Your task to perform on an android device: remove spam from my inbox in the gmail app Image 0: 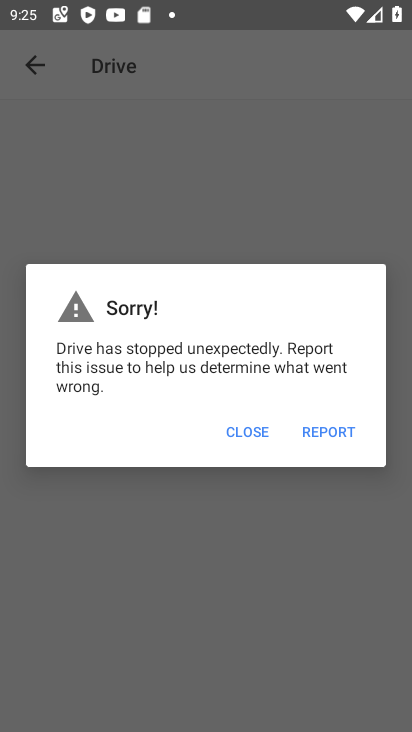
Step 0: press home button
Your task to perform on an android device: remove spam from my inbox in the gmail app Image 1: 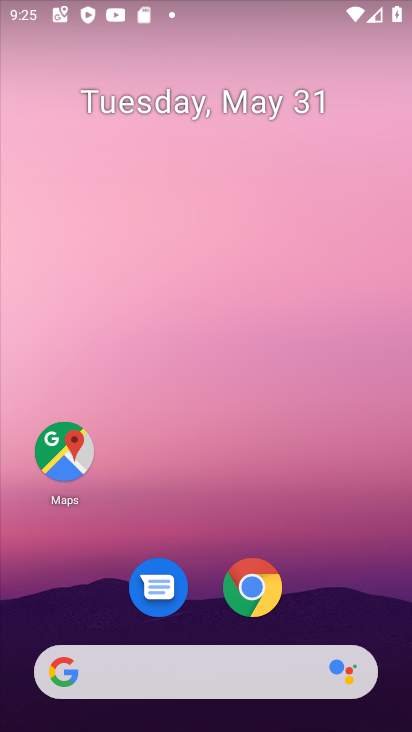
Step 1: drag from (332, 600) to (328, 113)
Your task to perform on an android device: remove spam from my inbox in the gmail app Image 2: 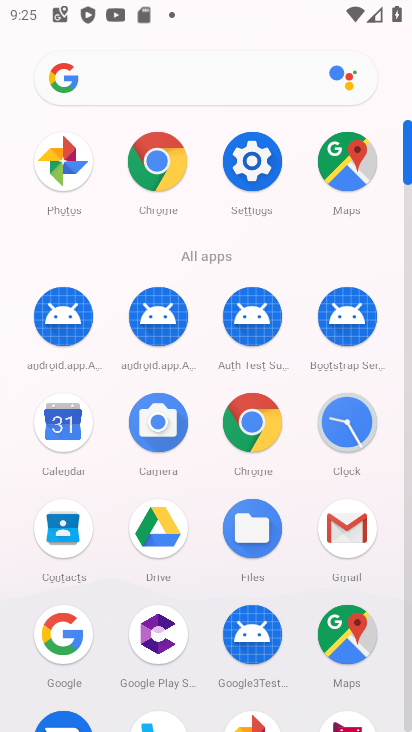
Step 2: click (350, 529)
Your task to perform on an android device: remove spam from my inbox in the gmail app Image 3: 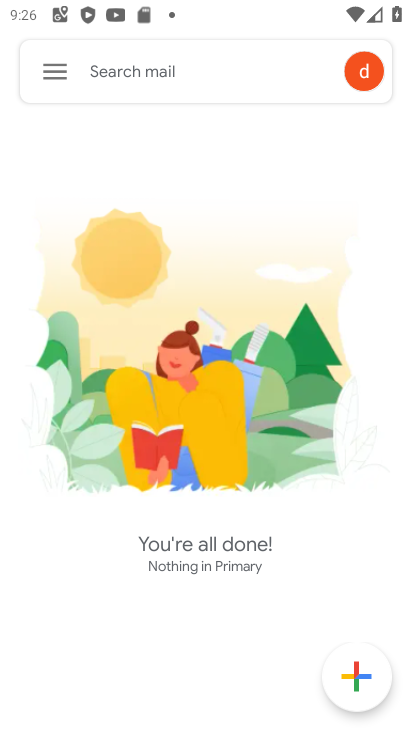
Step 3: click (54, 78)
Your task to perform on an android device: remove spam from my inbox in the gmail app Image 4: 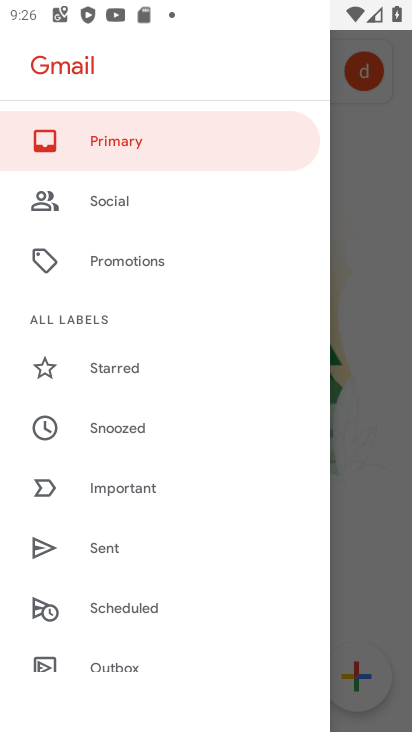
Step 4: drag from (191, 615) to (227, 157)
Your task to perform on an android device: remove spam from my inbox in the gmail app Image 5: 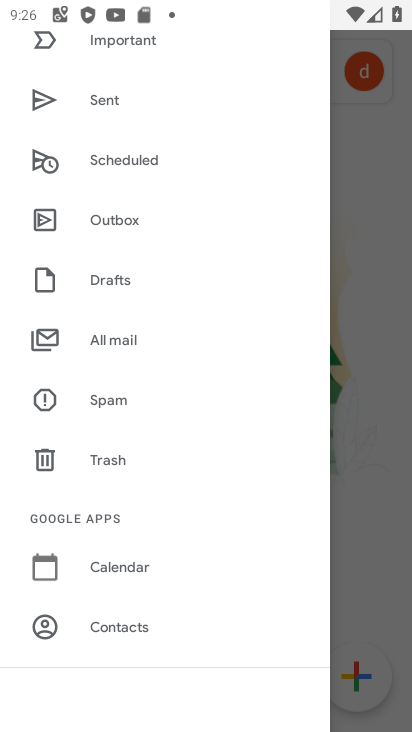
Step 5: click (124, 399)
Your task to perform on an android device: remove spam from my inbox in the gmail app Image 6: 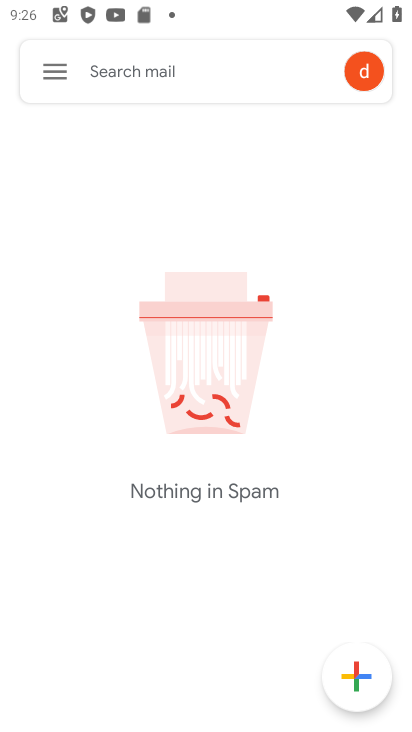
Step 6: task complete